Your task to perform on an android device: toggle javascript in the chrome app Image 0: 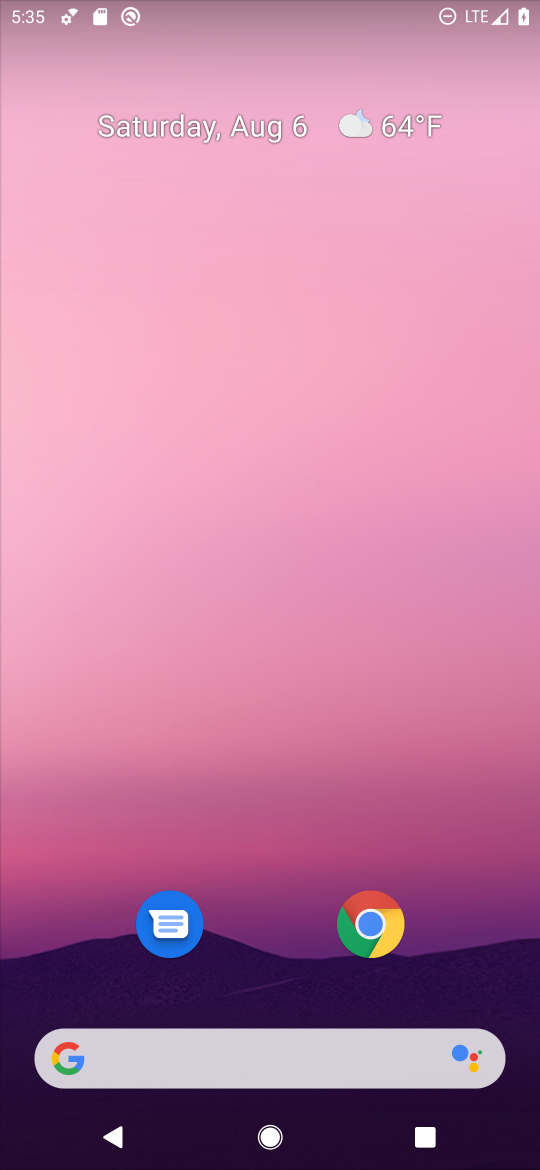
Step 0: press home button
Your task to perform on an android device: toggle javascript in the chrome app Image 1: 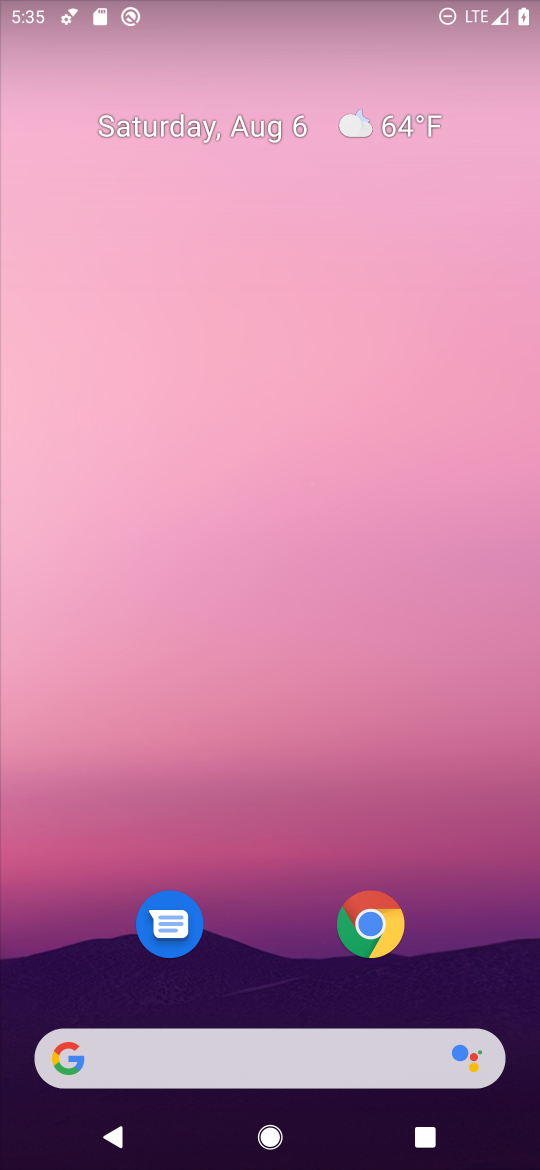
Step 1: click (380, 921)
Your task to perform on an android device: toggle javascript in the chrome app Image 2: 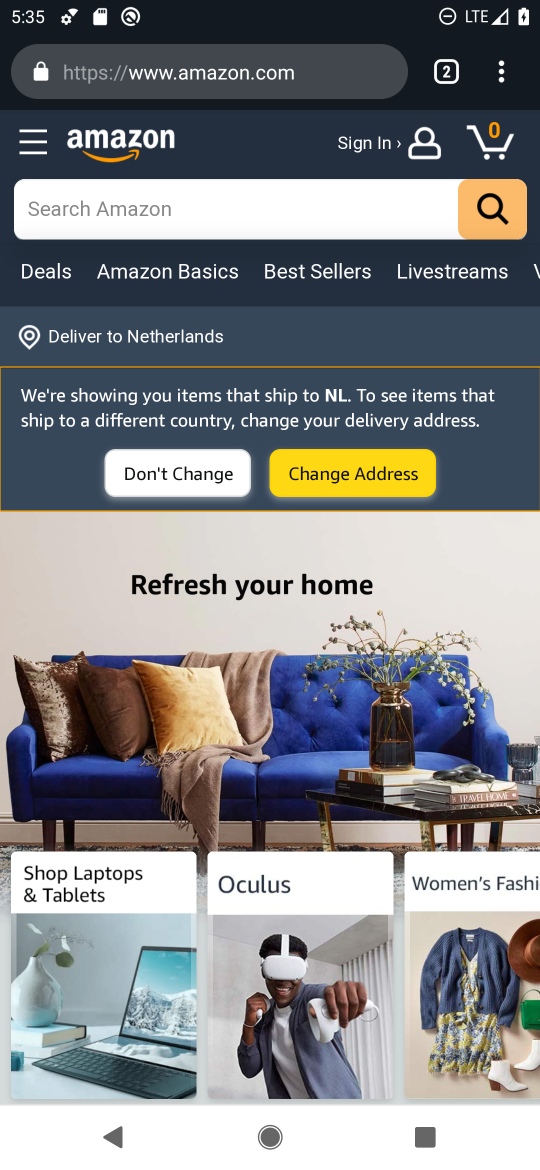
Step 2: click (504, 82)
Your task to perform on an android device: toggle javascript in the chrome app Image 3: 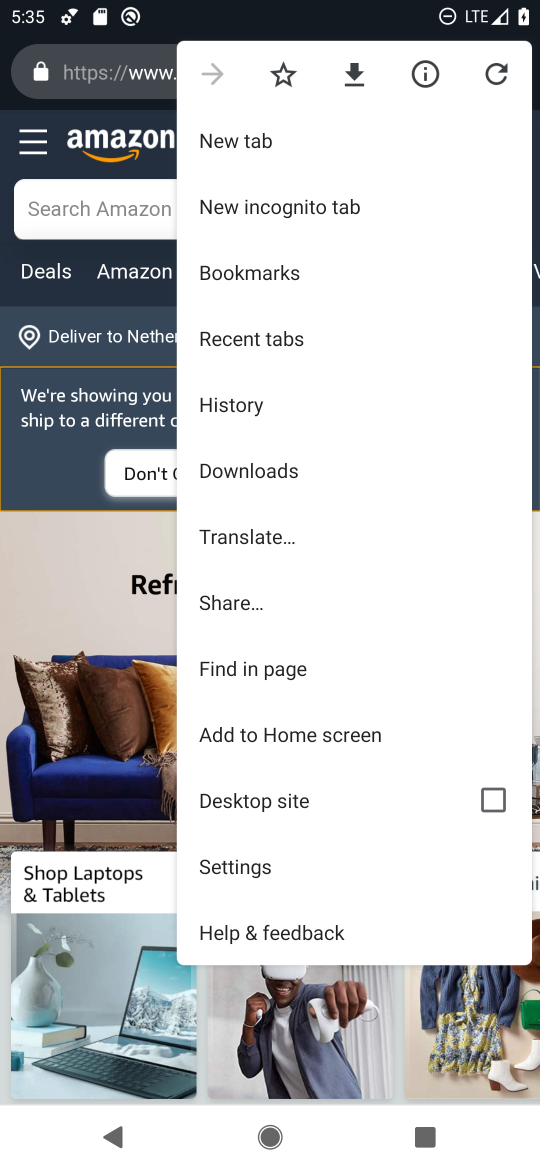
Step 3: click (240, 860)
Your task to perform on an android device: toggle javascript in the chrome app Image 4: 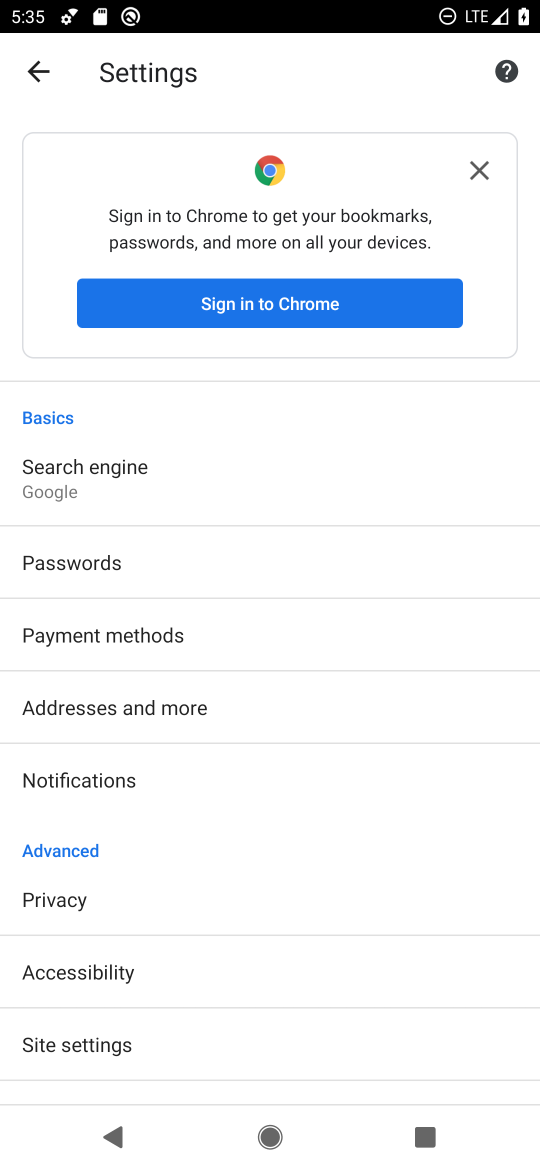
Step 4: click (94, 1035)
Your task to perform on an android device: toggle javascript in the chrome app Image 5: 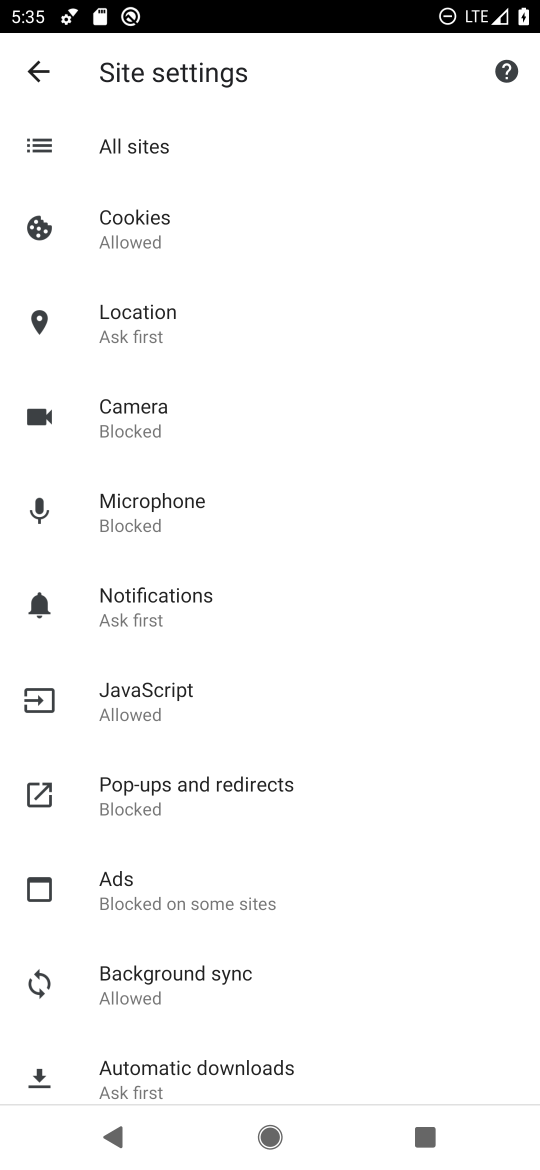
Step 5: click (169, 672)
Your task to perform on an android device: toggle javascript in the chrome app Image 6: 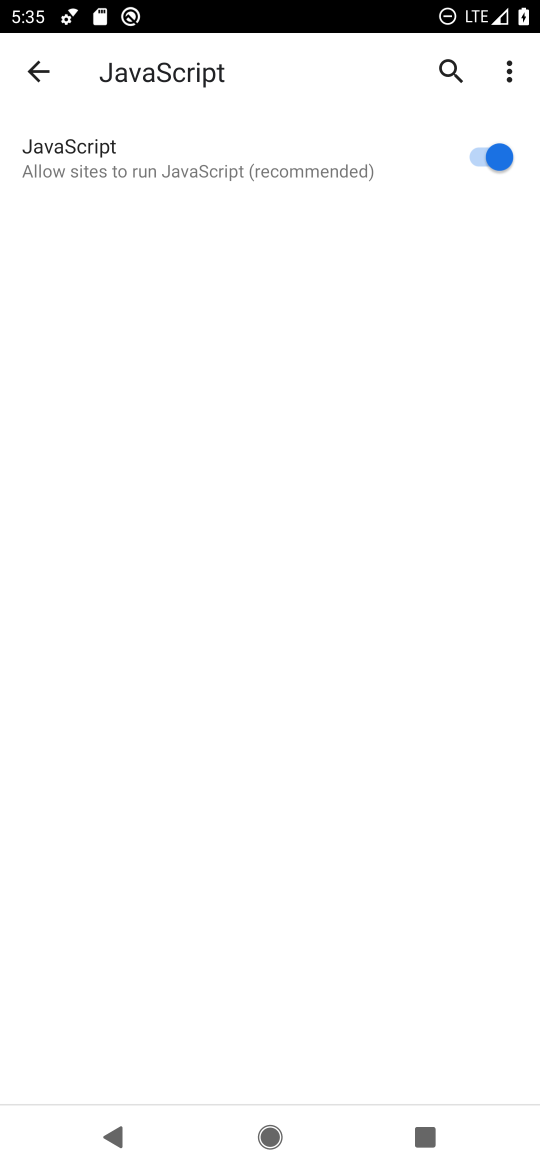
Step 6: click (484, 162)
Your task to perform on an android device: toggle javascript in the chrome app Image 7: 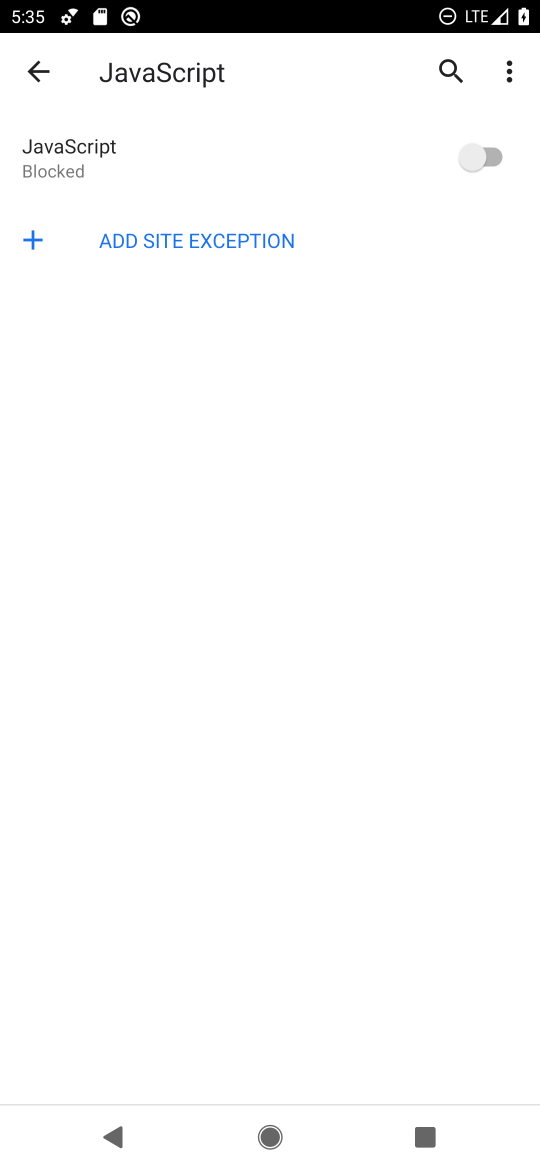
Step 7: task complete